Your task to perform on an android device: Search for pizza restaurants on Maps Image 0: 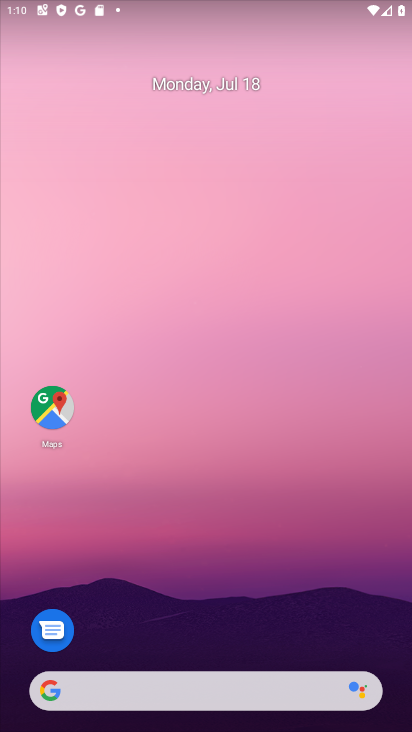
Step 0: drag from (295, 685) to (361, 11)
Your task to perform on an android device: Search for pizza restaurants on Maps Image 1: 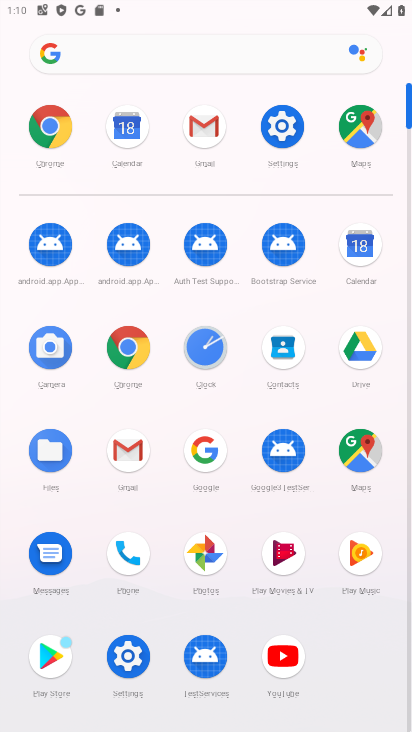
Step 1: click (360, 469)
Your task to perform on an android device: Search for pizza restaurants on Maps Image 2: 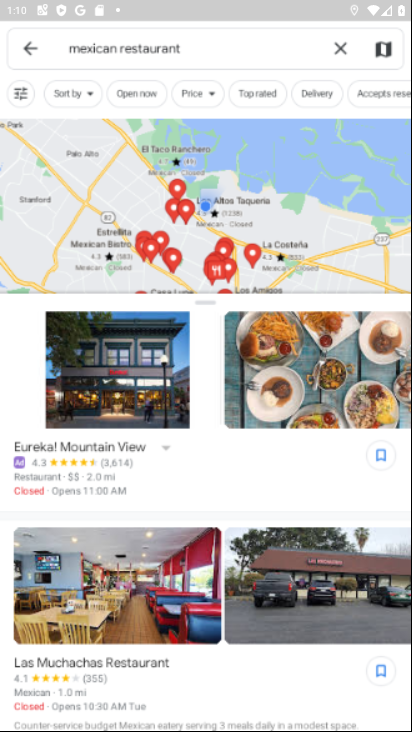
Step 2: press back button
Your task to perform on an android device: Search for pizza restaurants on Maps Image 3: 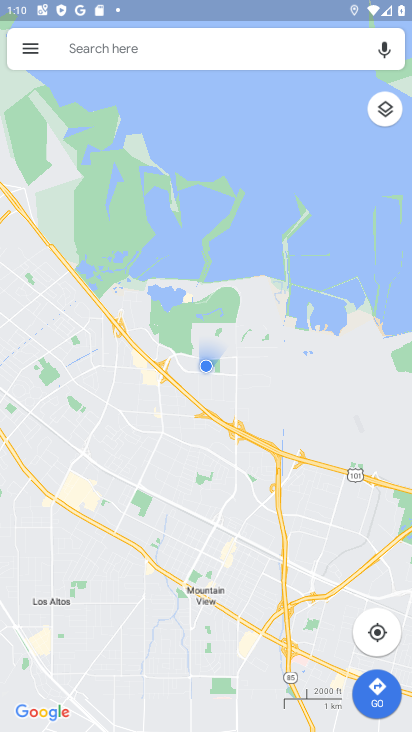
Step 3: click (181, 51)
Your task to perform on an android device: Search for pizza restaurants on Maps Image 4: 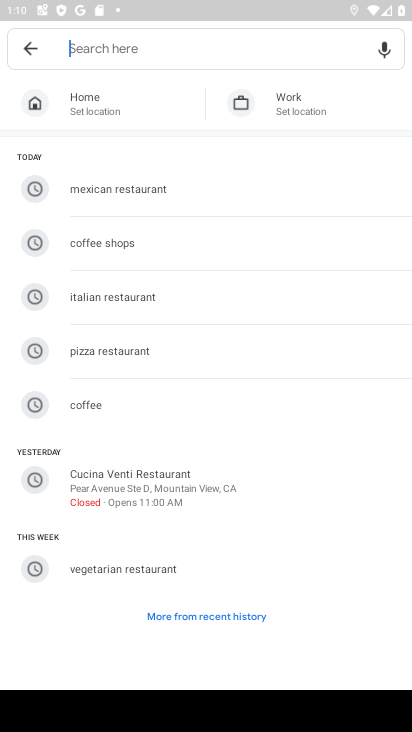
Step 4: click (133, 364)
Your task to perform on an android device: Search for pizza restaurants on Maps Image 5: 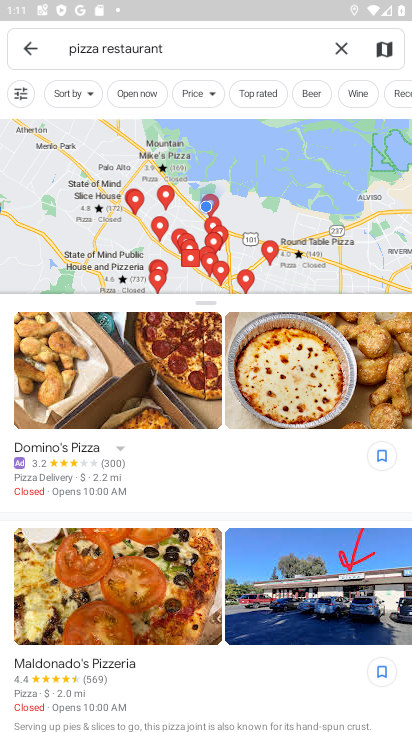
Step 5: task complete